Your task to perform on an android device: toggle notifications settings in the gmail app Image 0: 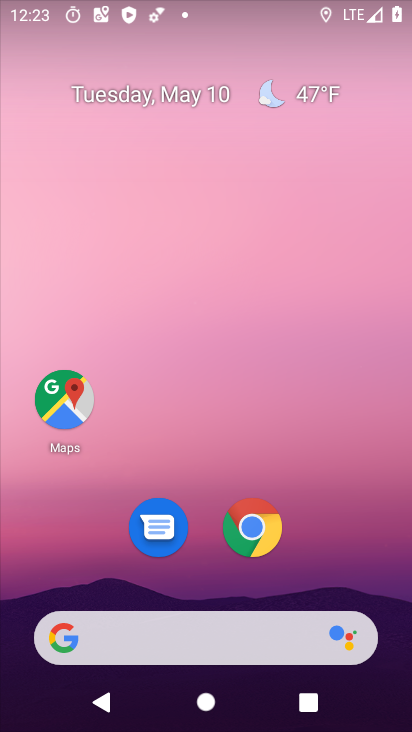
Step 0: drag from (284, 540) to (290, 215)
Your task to perform on an android device: toggle notifications settings in the gmail app Image 1: 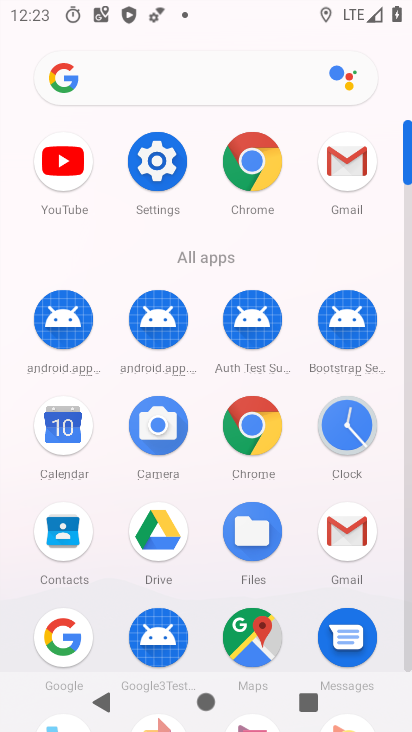
Step 1: click (343, 540)
Your task to perform on an android device: toggle notifications settings in the gmail app Image 2: 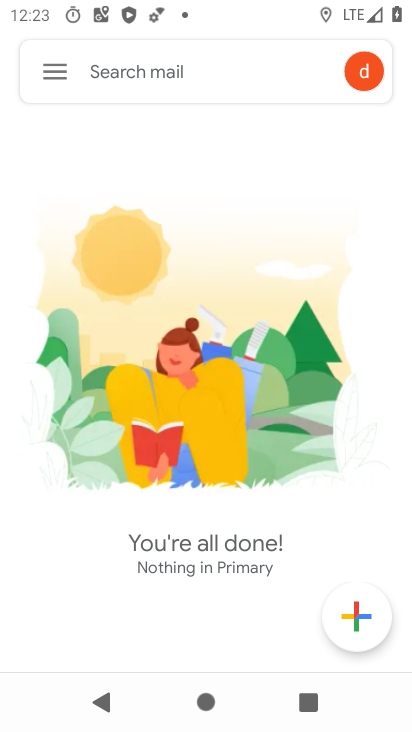
Step 2: click (60, 68)
Your task to perform on an android device: toggle notifications settings in the gmail app Image 3: 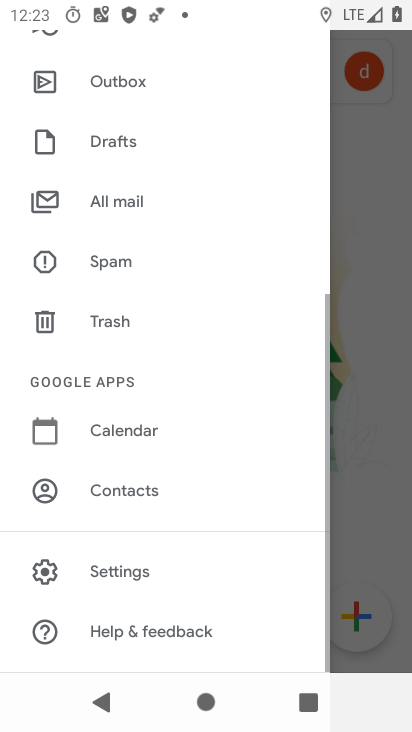
Step 3: click (142, 570)
Your task to perform on an android device: toggle notifications settings in the gmail app Image 4: 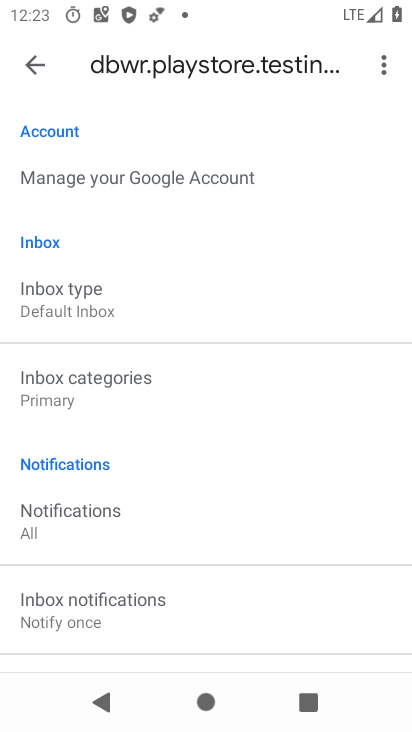
Step 4: click (93, 493)
Your task to perform on an android device: toggle notifications settings in the gmail app Image 5: 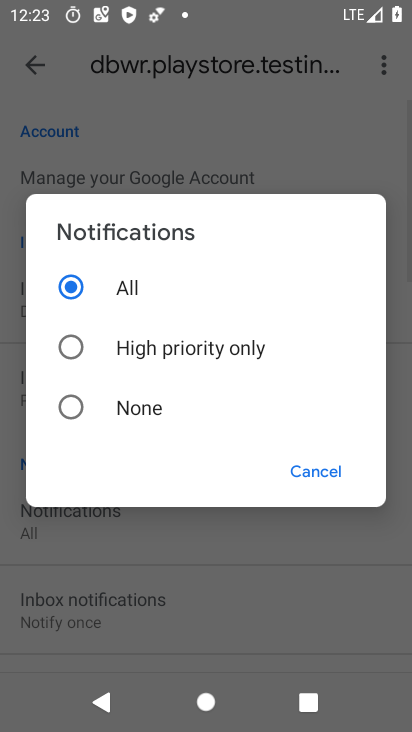
Step 5: click (107, 398)
Your task to perform on an android device: toggle notifications settings in the gmail app Image 6: 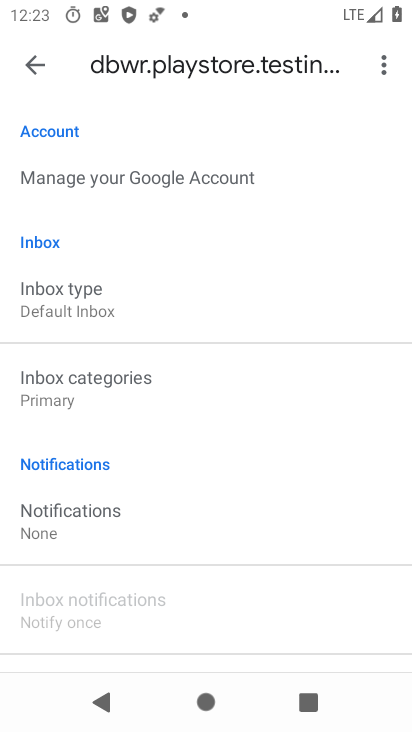
Step 6: task complete